Your task to perform on an android device: Search for pizza restaurants on Maps Image 0: 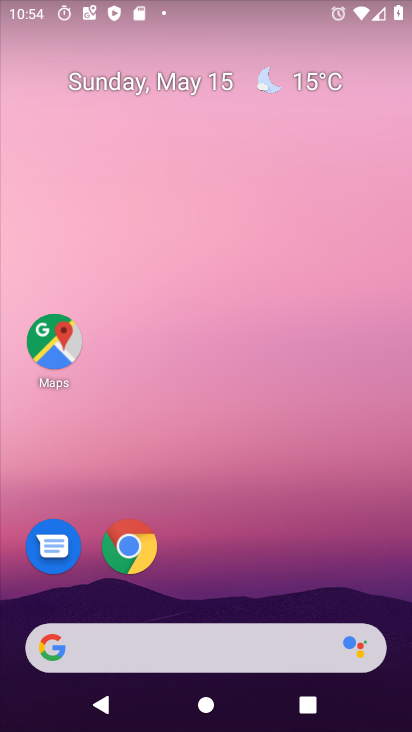
Step 0: drag from (240, 605) to (204, 216)
Your task to perform on an android device: Search for pizza restaurants on Maps Image 1: 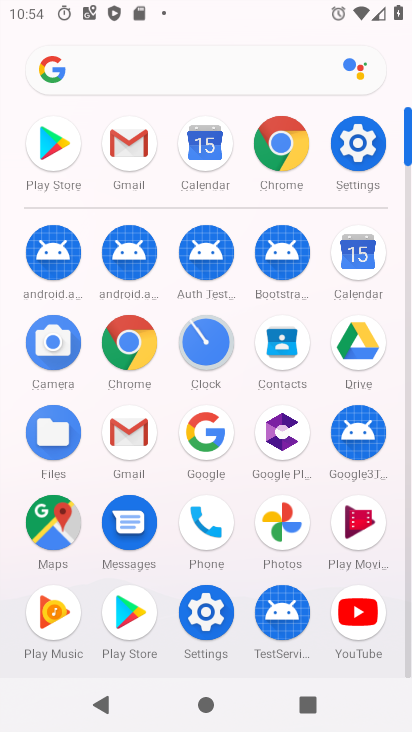
Step 1: drag from (247, 632) to (214, 80)
Your task to perform on an android device: Search for pizza restaurants on Maps Image 2: 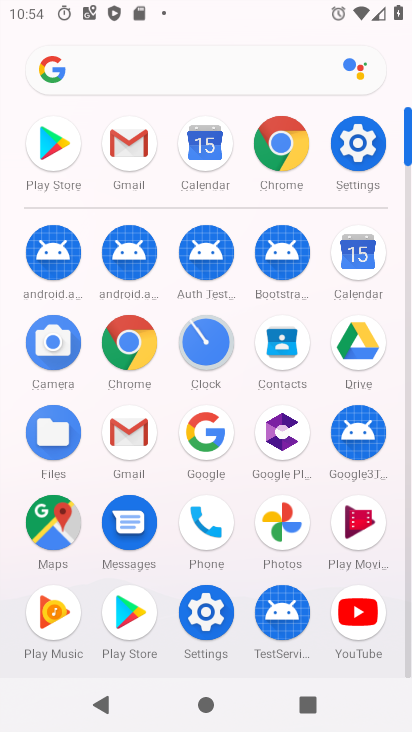
Step 2: drag from (252, 546) to (235, 115)
Your task to perform on an android device: Search for pizza restaurants on Maps Image 3: 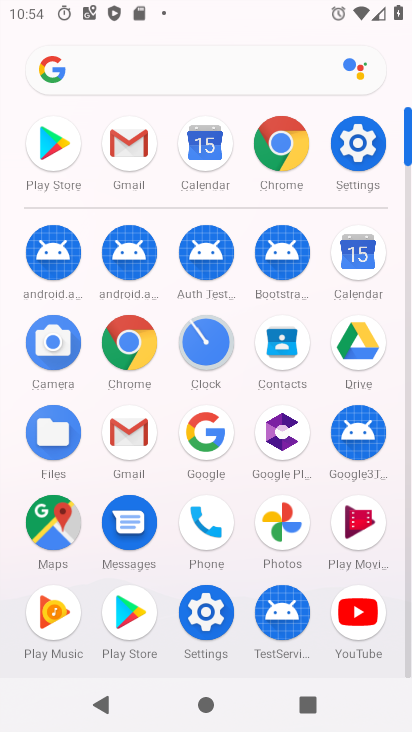
Step 3: click (24, 512)
Your task to perform on an android device: Search for pizza restaurants on Maps Image 4: 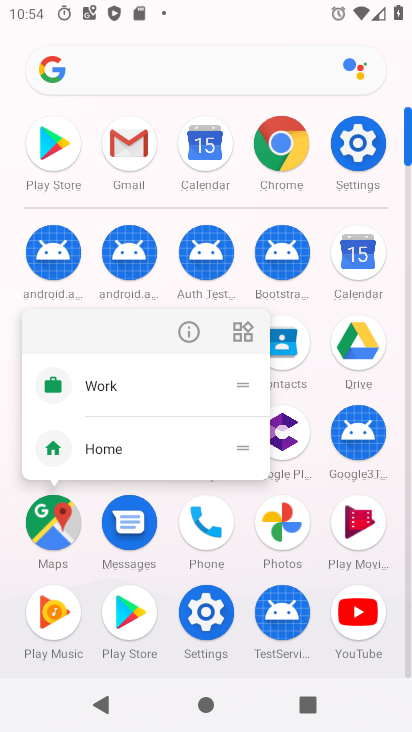
Step 4: click (37, 515)
Your task to perform on an android device: Search for pizza restaurants on Maps Image 5: 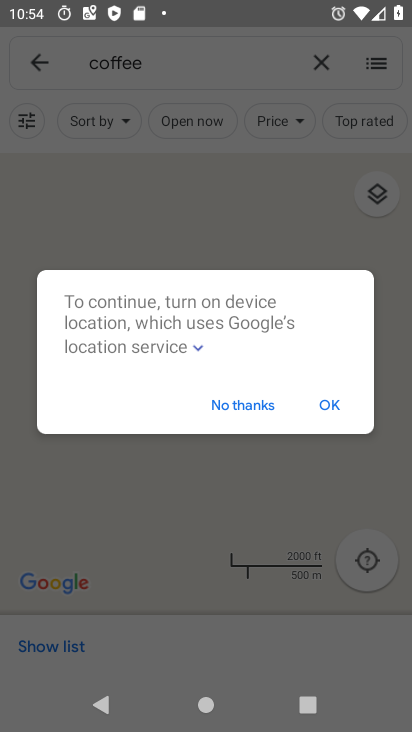
Step 5: click (242, 400)
Your task to perform on an android device: Search for pizza restaurants on Maps Image 6: 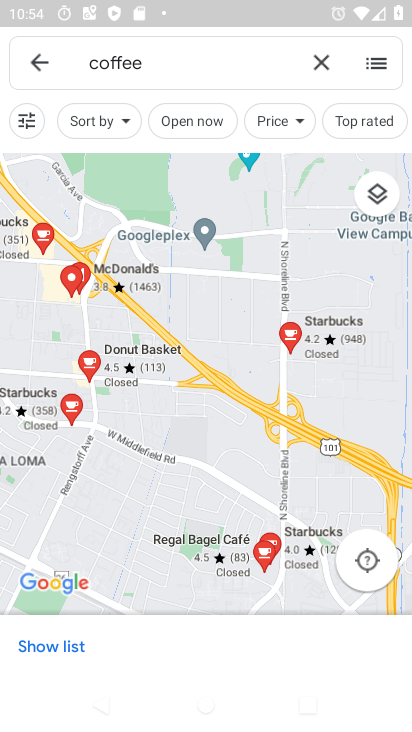
Step 6: click (130, 60)
Your task to perform on an android device: Search for pizza restaurants on Maps Image 7: 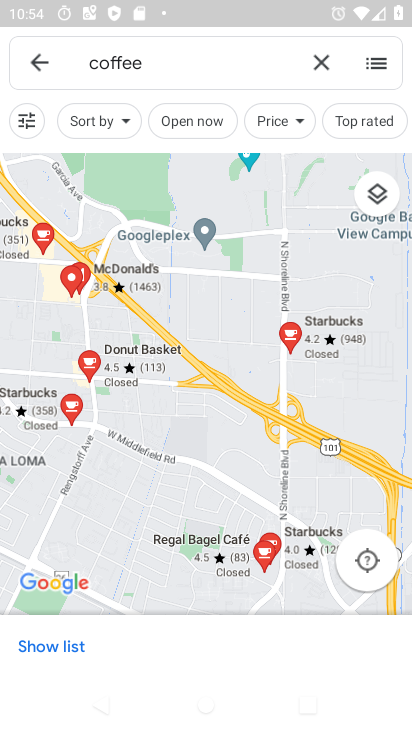
Step 7: click (137, 54)
Your task to perform on an android device: Search for pizza restaurants on Maps Image 8: 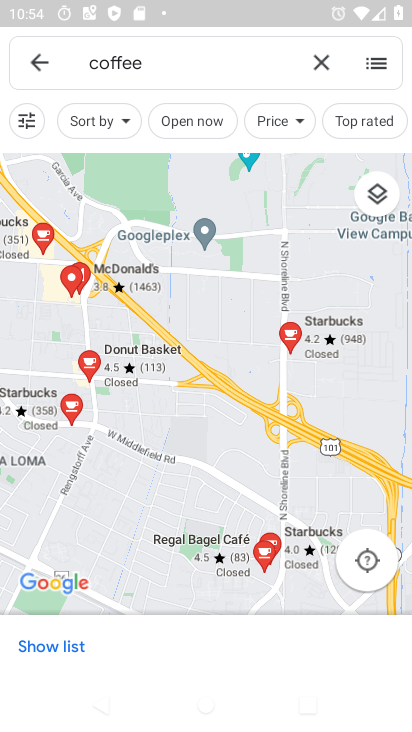
Step 8: click (137, 54)
Your task to perform on an android device: Search for pizza restaurants on Maps Image 9: 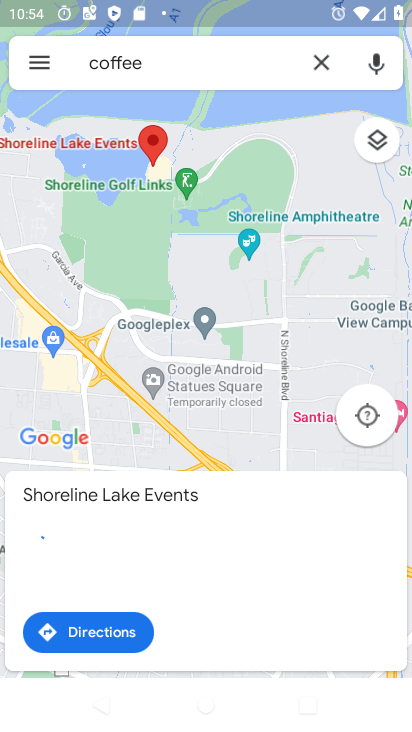
Step 9: click (324, 59)
Your task to perform on an android device: Search for pizza restaurants on Maps Image 10: 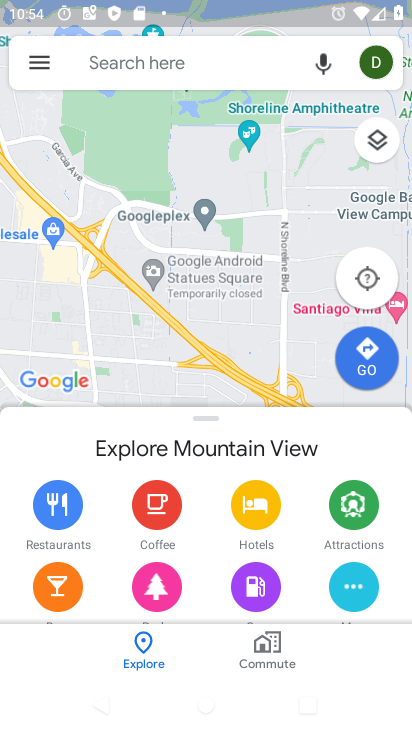
Step 10: click (102, 49)
Your task to perform on an android device: Search for pizza restaurants on Maps Image 11: 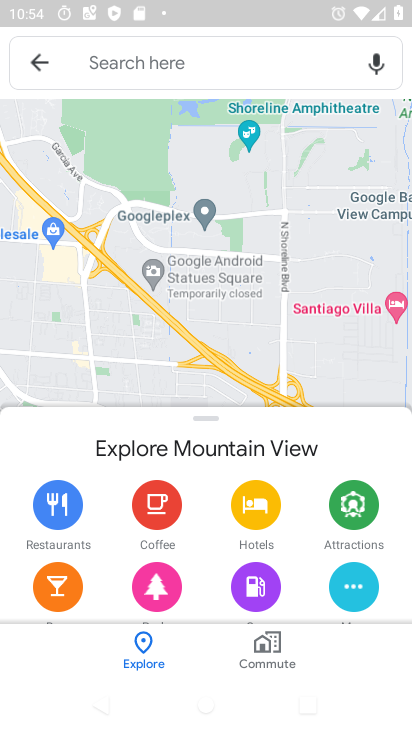
Step 11: click (104, 49)
Your task to perform on an android device: Search for pizza restaurants on Maps Image 12: 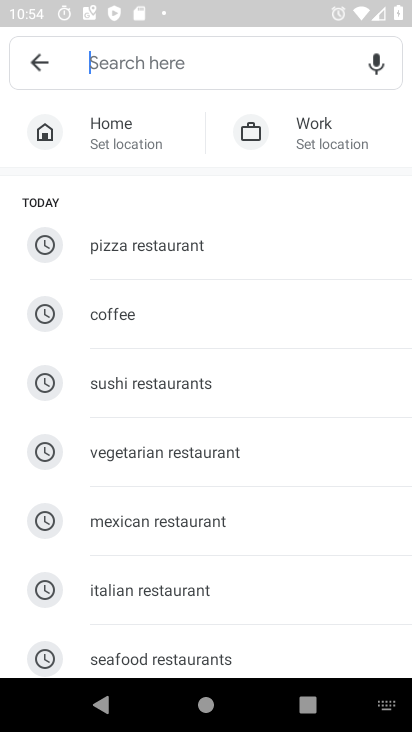
Step 12: click (177, 243)
Your task to perform on an android device: Search for pizza restaurants on Maps Image 13: 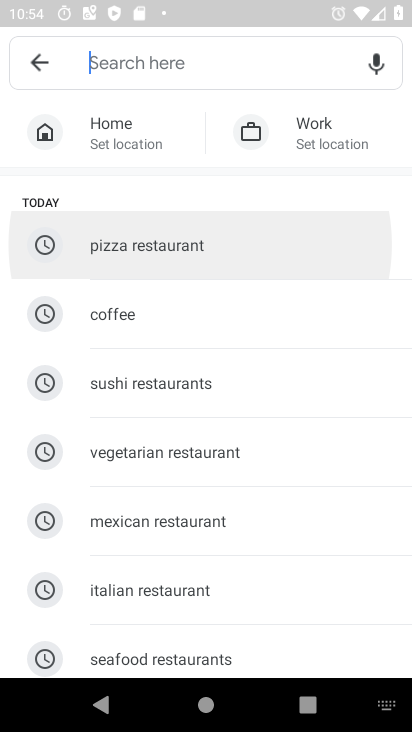
Step 13: click (176, 243)
Your task to perform on an android device: Search for pizza restaurants on Maps Image 14: 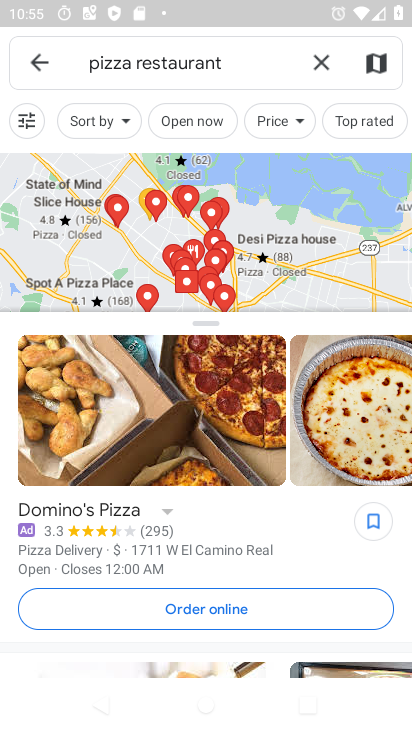
Step 14: task complete